Your task to perform on an android device: Search for sushi restaurants on Maps Image 0: 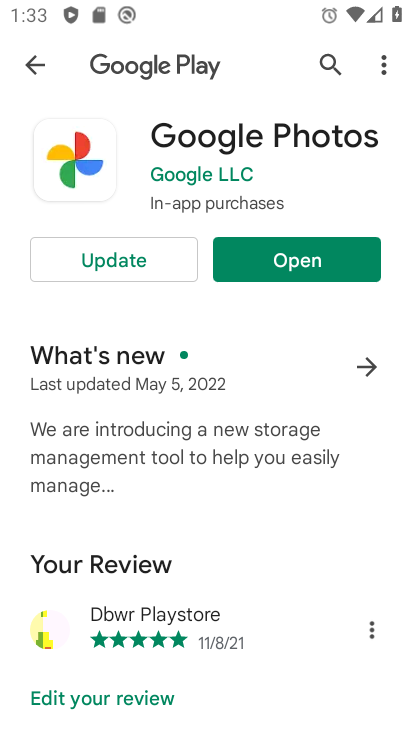
Step 0: press home button
Your task to perform on an android device: Search for sushi restaurants on Maps Image 1: 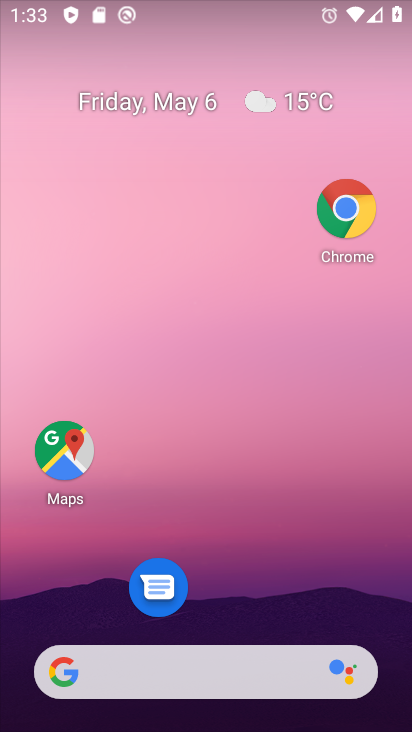
Step 1: click (40, 462)
Your task to perform on an android device: Search for sushi restaurants on Maps Image 2: 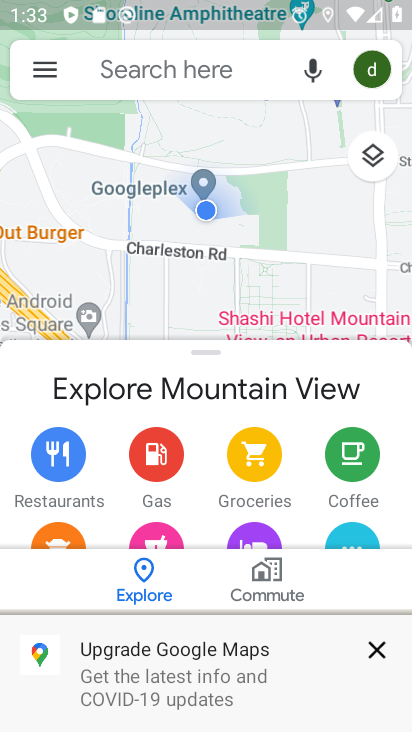
Step 2: click (123, 56)
Your task to perform on an android device: Search for sushi restaurants on Maps Image 3: 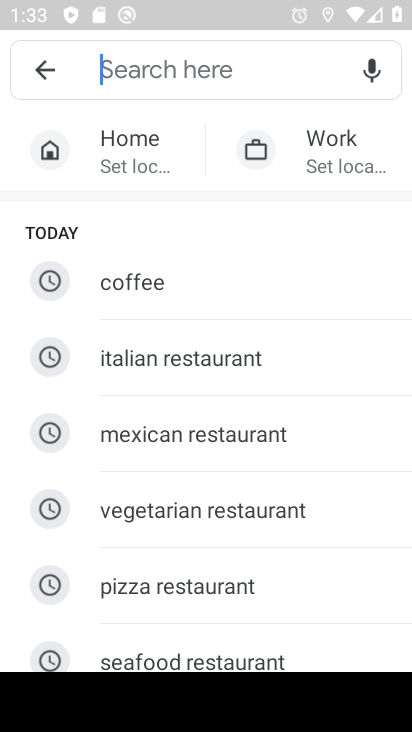
Step 3: drag from (197, 633) to (188, 346)
Your task to perform on an android device: Search for sushi restaurants on Maps Image 4: 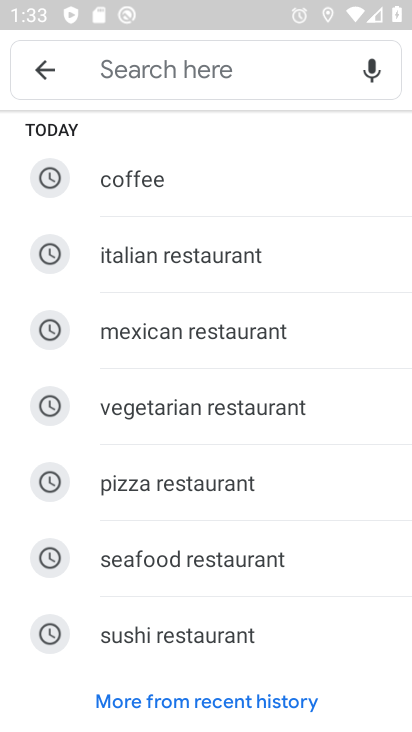
Step 4: click (173, 645)
Your task to perform on an android device: Search for sushi restaurants on Maps Image 5: 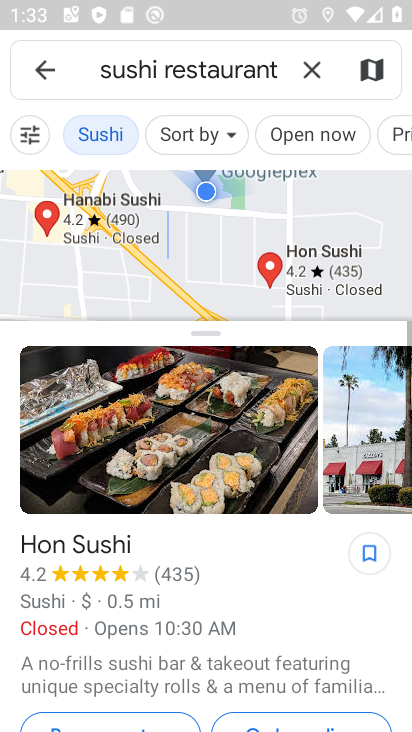
Step 5: task complete